Your task to perform on an android device: Go to Google maps Image 0: 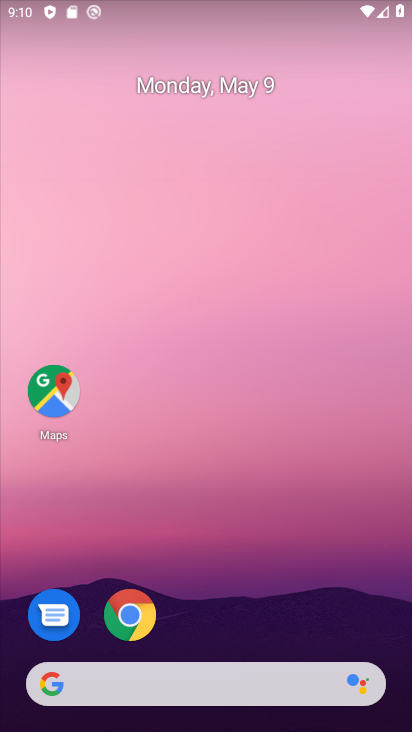
Step 0: click (59, 397)
Your task to perform on an android device: Go to Google maps Image 1: 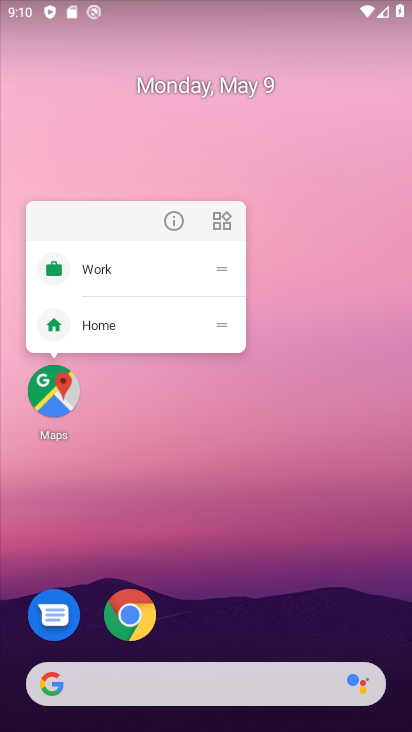
Step 1: click (57, 400)
Your task to perform on an android device: Go to Google maps Image 2: 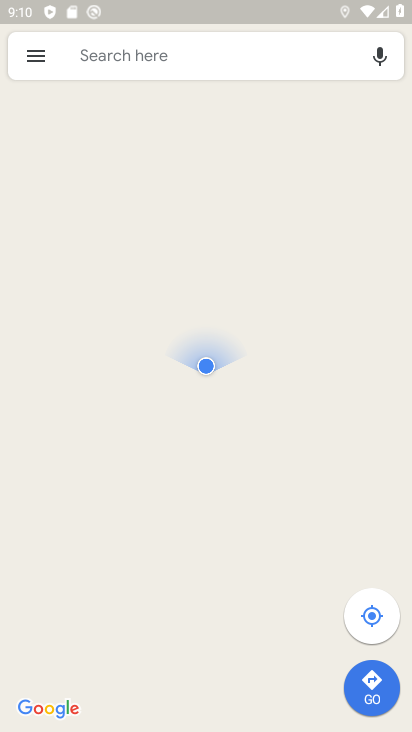
Step 2: task complete